Your task to perform on an android device: open chrome privacy settings Image 0: 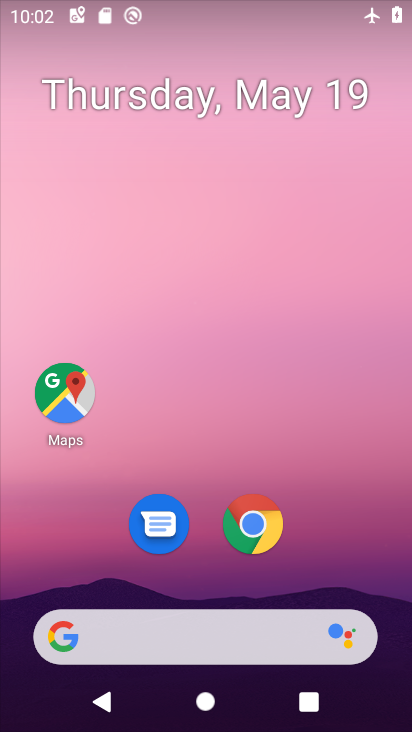
Step 0: click (270, 513)
Your task to perform on an android device: open chrome privacy settings Image 1: 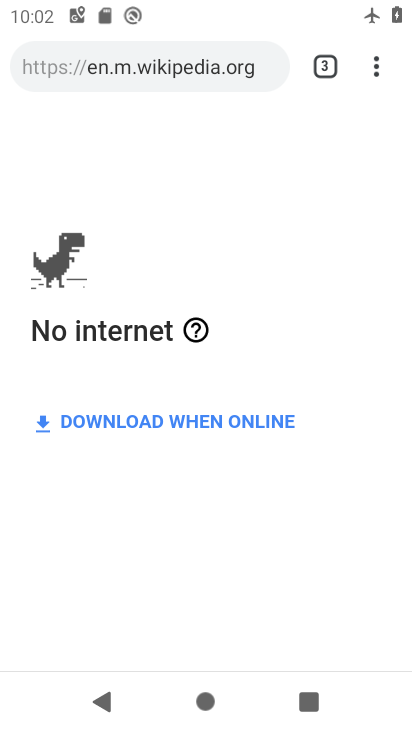
Step 1: click (370, 72)
Your task to perform on an android device: open chrome privacy settings Image 2: 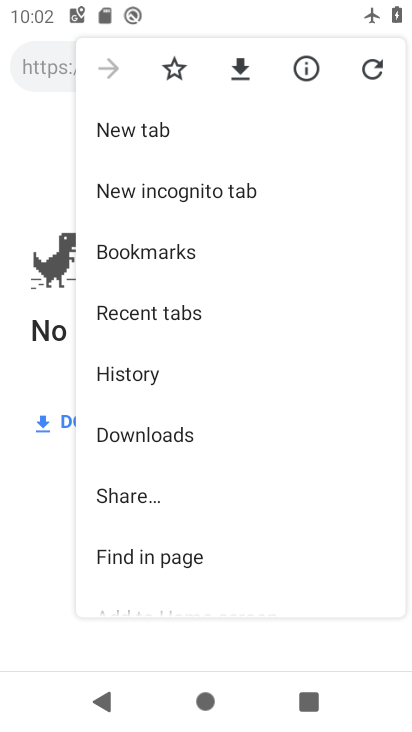
Step 2: drag from (226, 437) to (252, 97)
Your task to perform on an android device: open chrome privacy settings Image 3: 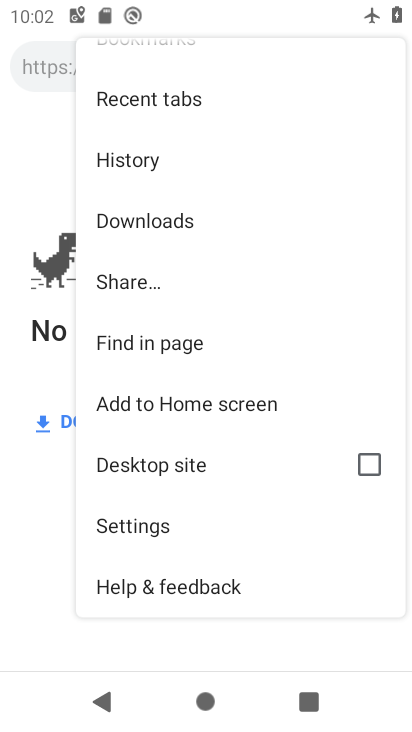
Step 3: click (166, 523)
Your task to perform on an android device: open chrome privacy settings Image 4: 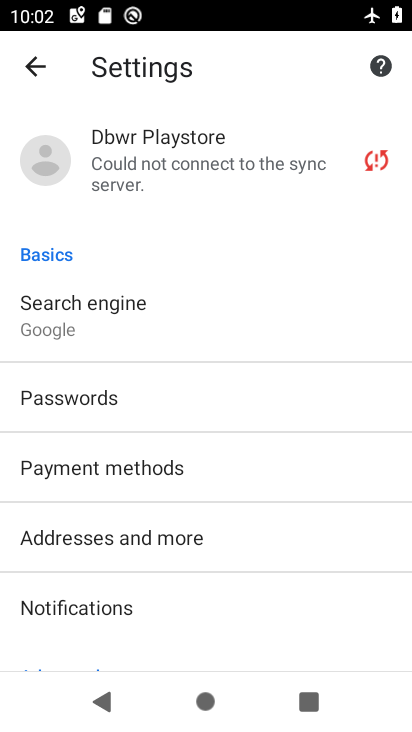
Step 4: drag from (241, 476) to (267, 140)
Your task to perform on an android device: open chrome privacy settings Image 5: 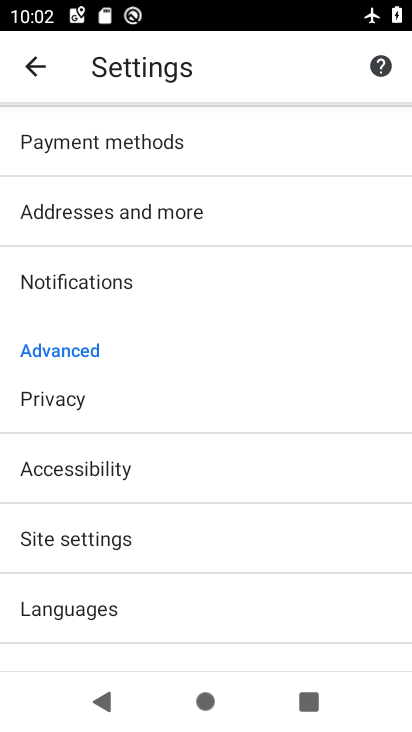
Step 5: click (181, 413)
Your task to perform on an android device: open chrome privacy settings Image 6: 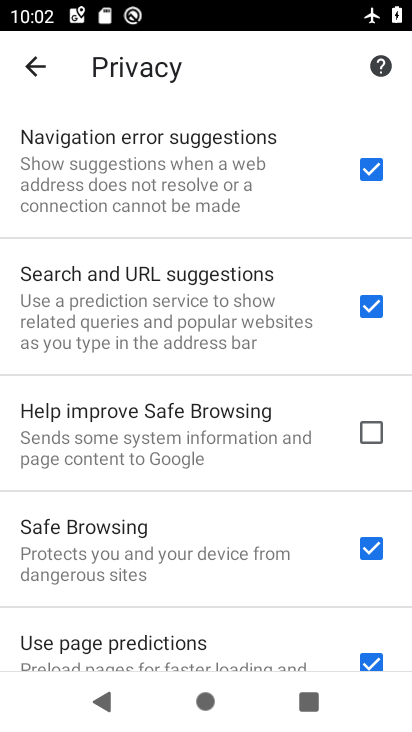
Step 6: task complete